Your task to perform on an android device: Open maps Image 0: 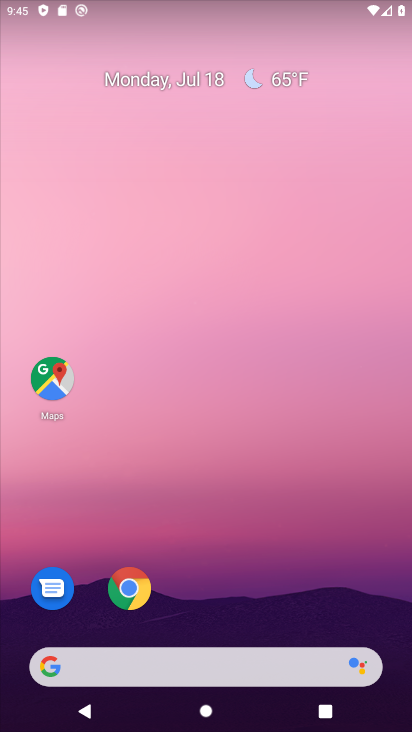
Step 0: press home button
Your task to perform on an android device: Open maps Image 1: 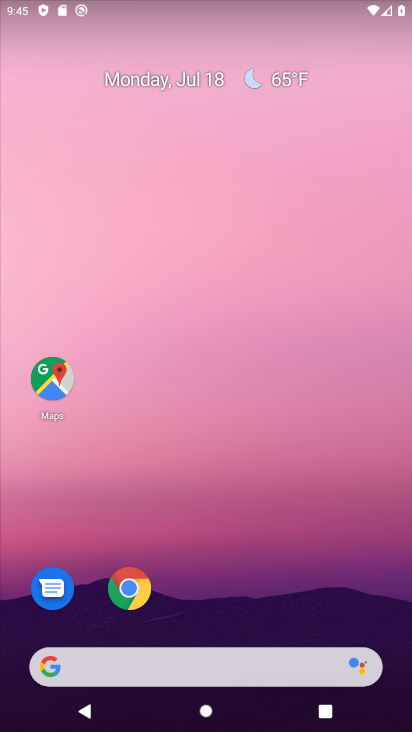
Step 1: drag from (212, 621) to (299, 36)
Your task to perform on an android device: Open maps Image 2: 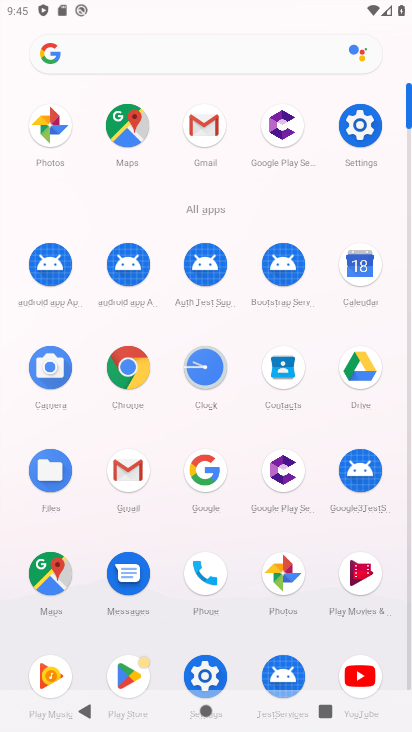
Step 2: click (132, 127)
Your task to perform on an android device: Open maps Image 3: 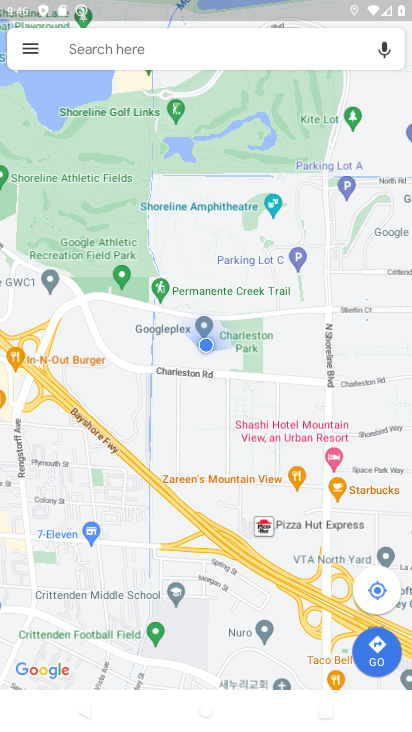
Step 3: task complete